Your task to perform on an android device: Go to Wikipedia Image 0: 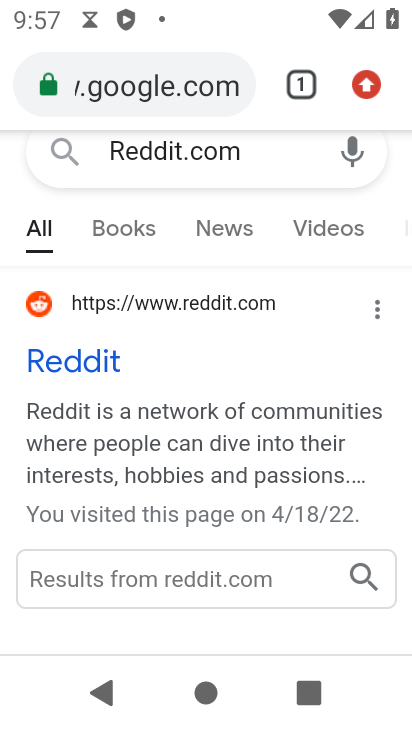
Step 0: click (205, 93)
Your task to perform on an android device: Go to Wikipedia Image 1: 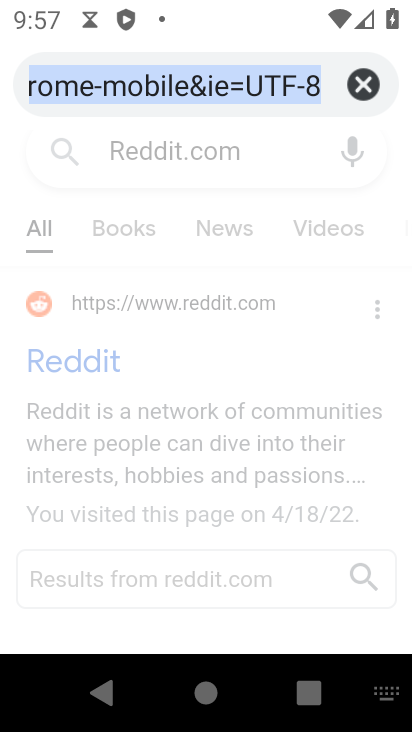
Step 1: type "Wikipedia"
Your task to perform on an android device: Go to Wikipedia Image 2: 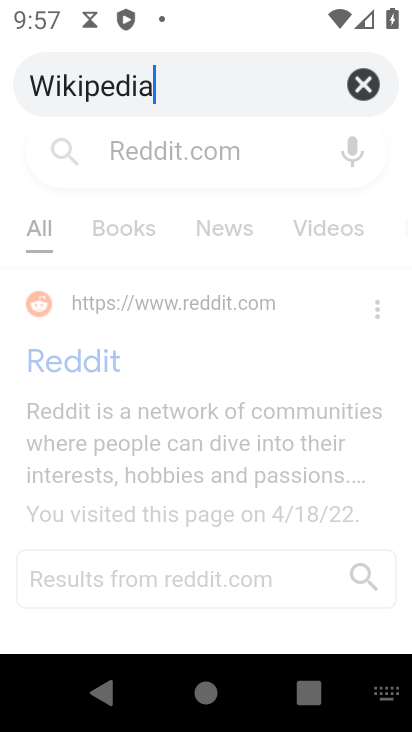
Step 2: type ""
Your task to perform on an android device: Go to Wikipedia Image 3: 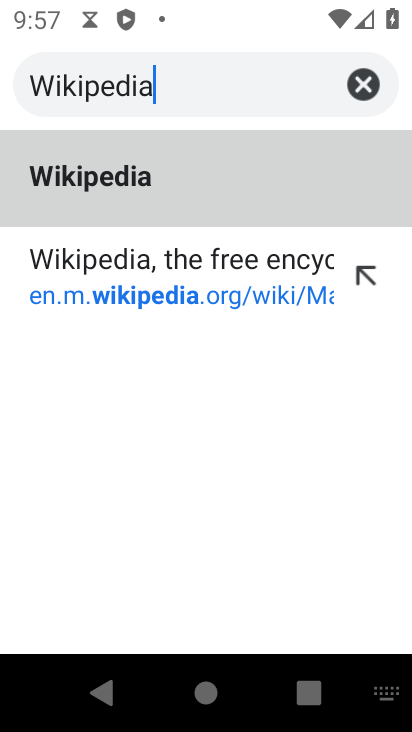
Step 3: click (120, 198)
Your task to perform on an android device: Go to Wikipedia Image 4: 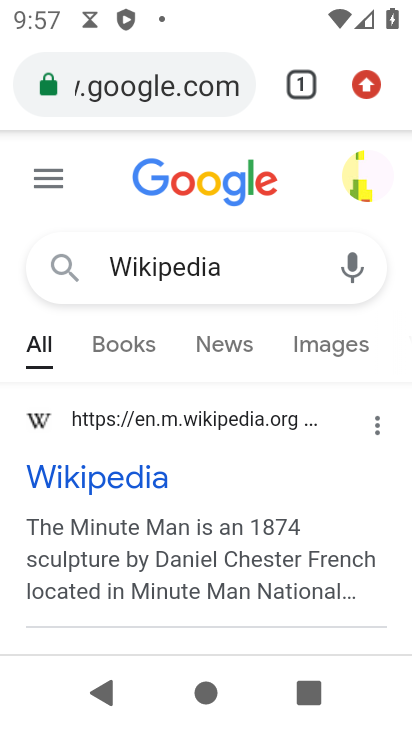
Step 4: task complete